Your task to perform on an android device: change the clock display to analog Image 0: 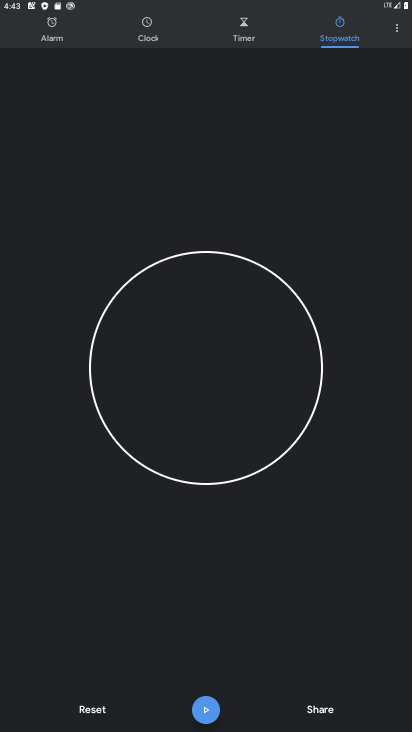
Step 0: press home button
Your task to perform on an android device: change the clock display to analog Image 1: 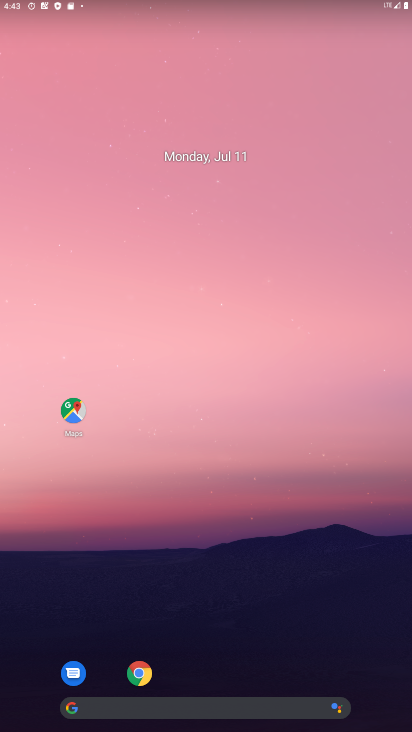
Step 1: drag from (189, 713) to (241, 156)
Your task to perform on an android device: change the clock display to analog Image 2: 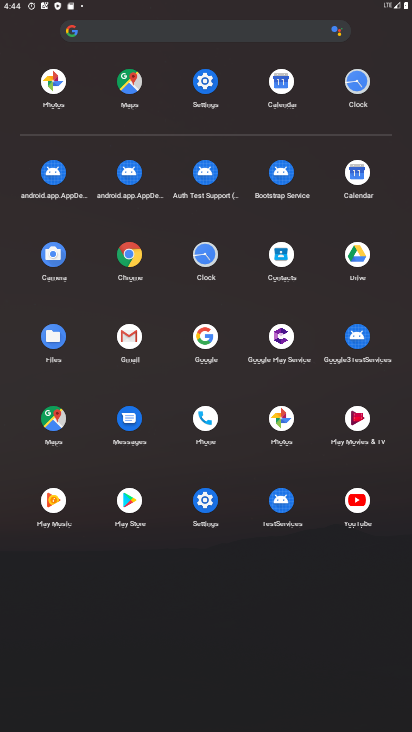
Step 2: click (207, 255)
Your task to perform on an android device: change the clock display to analog Image 3: 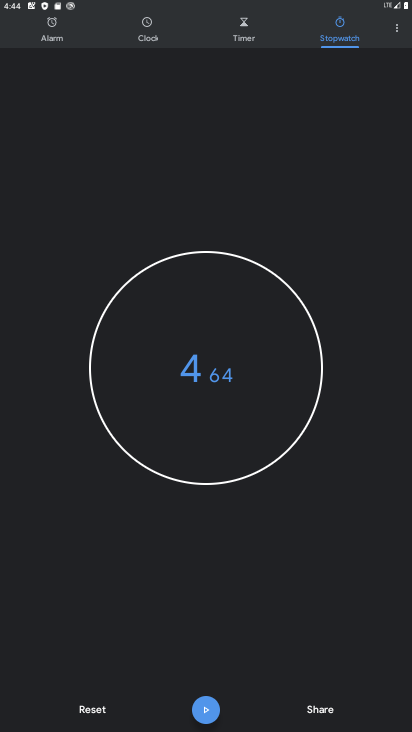
Step 3: click (397, 33)
Your task to perform on an android device: change the clock display to analog Image 4: 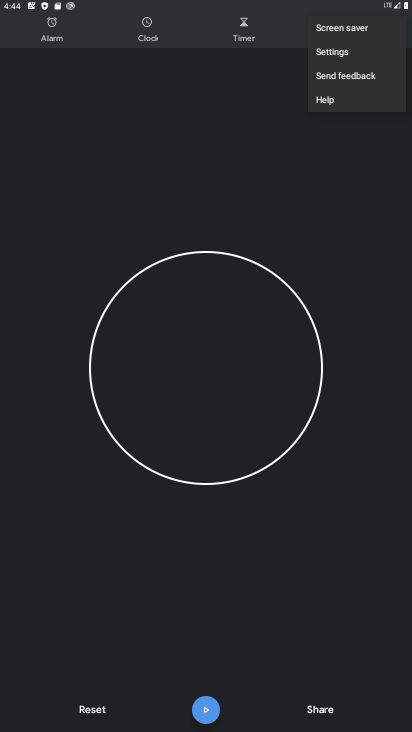
Step 4: click (342, 51)
Your task to perform on an android device: change the clock display to analog Image 5: 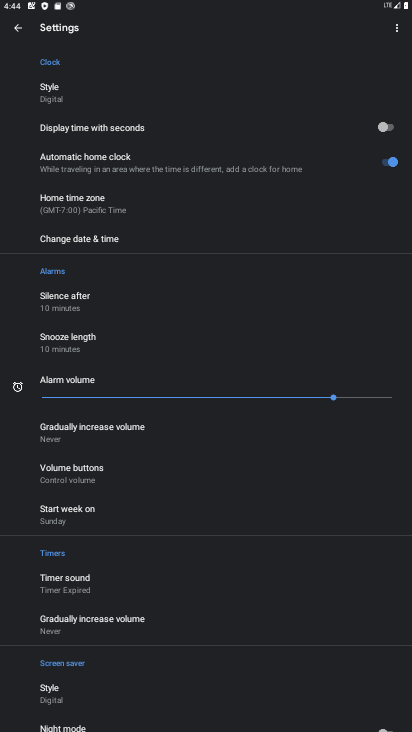
Step 5: click (66, 98)
Your task to perform on an android device: change the clock display to analog Image 6: 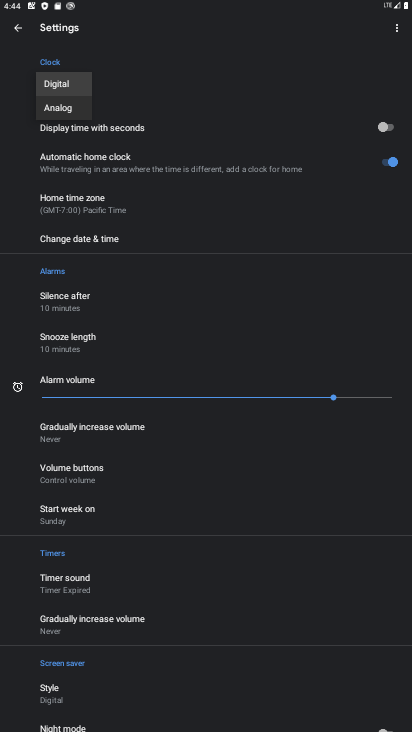
Step 6: click (73, 112)
Your task to perform on an android device: change the clock display to analog Image 7: 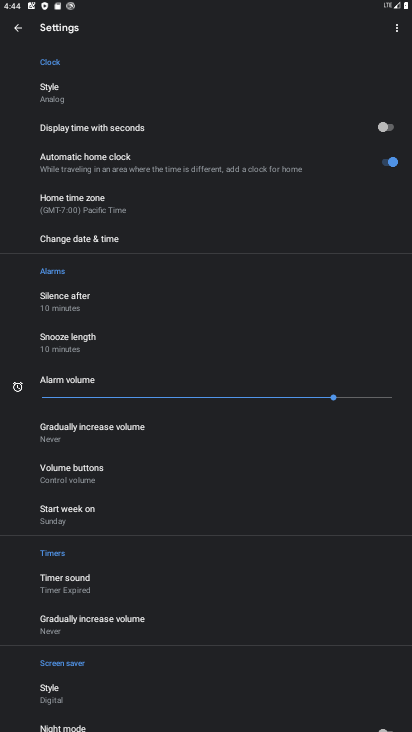
Step 7: task complete